Your task to perform on an android device: What is the recent news? Image 0: 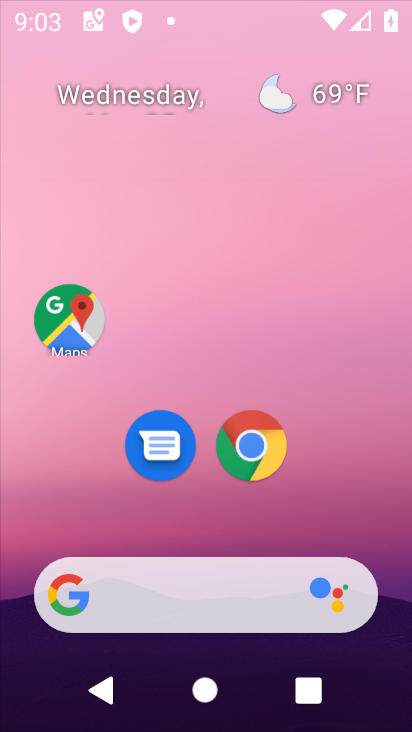
Step 0: click (346, 85)
Your task to perform on an android device: What is the recent news? Image 1: 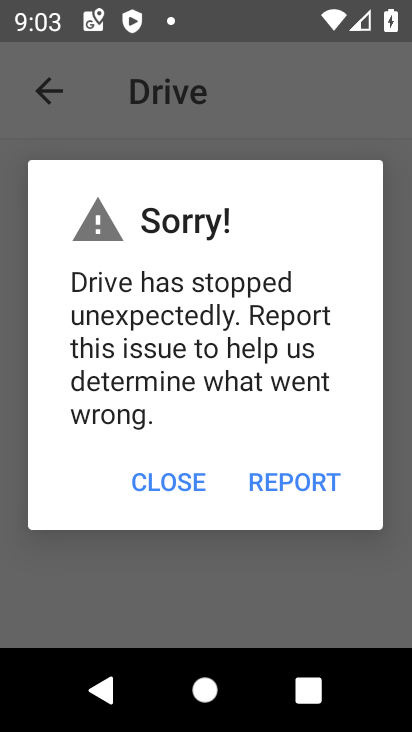
Step 1: press home button
Your task to perform on an android device: What is the recent news? Image 2: 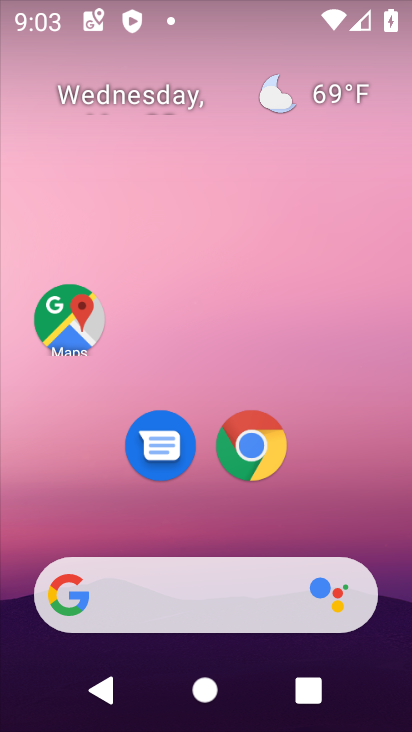
Step 2: click (261, 443)
Your task to perform on an android device: What is the recent news? Image 3: 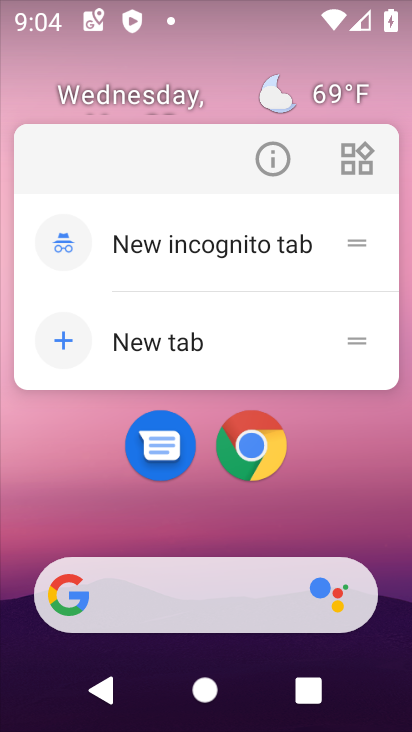
Step 3: click (296, 495)
Your task to perform on an android device: What is the recent news? Image 4: 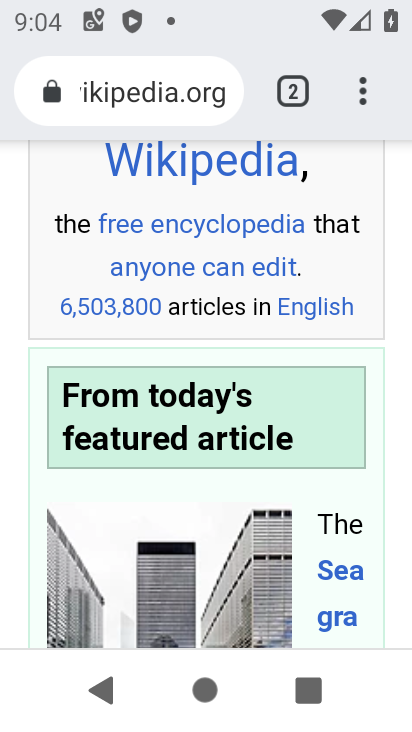
Step 4: drag from (362, 93) to (97, 168)
Your task to perform on an android device: What is the recent news? Image 5: 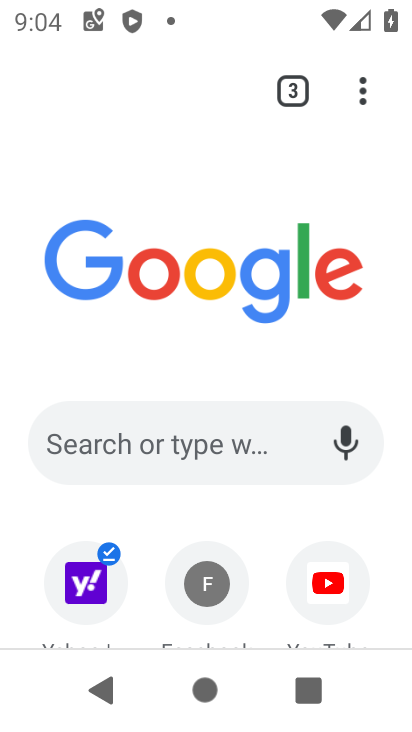
Step 5: click (187, 439)
Your task to perform on an android device: What is the recent news? Image 6: 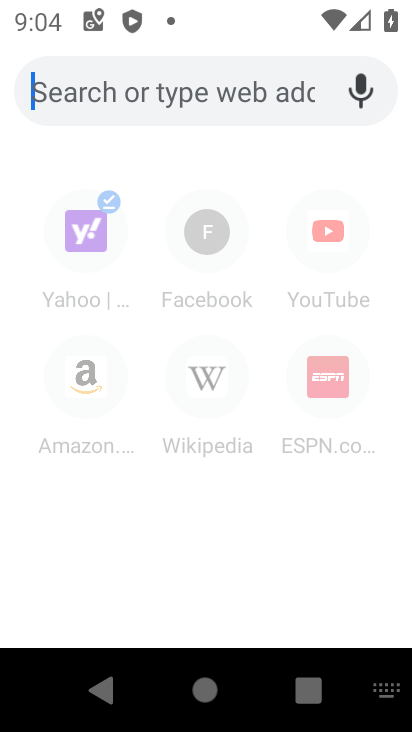
Step 6: type "What is the recent news?"
Your task to perform on an android device: What is the recent news? Image 7: 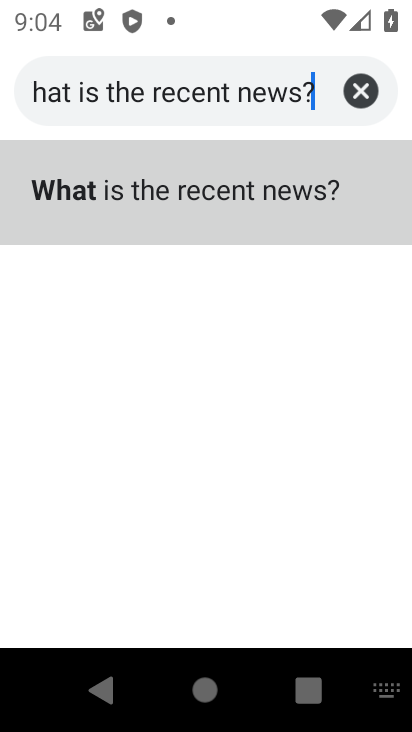
Step 7: click (271, 198)
Your task to perform on an android device: What is the recent news? Image 8: 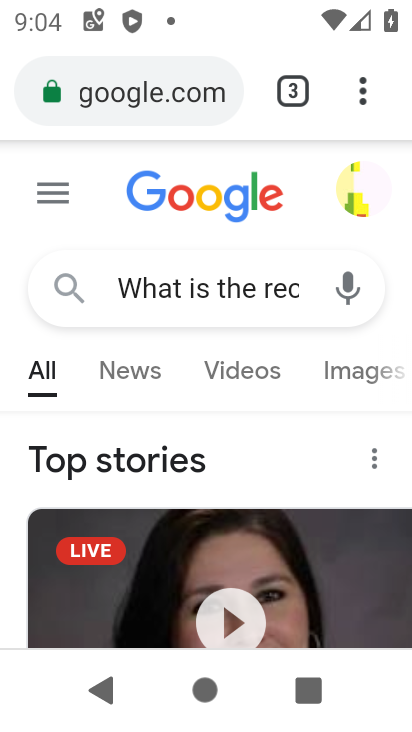
Step 8: drag from (179, 483) to (222, 119)
Your task to perform on an android device: What is the recent news? Image 9: 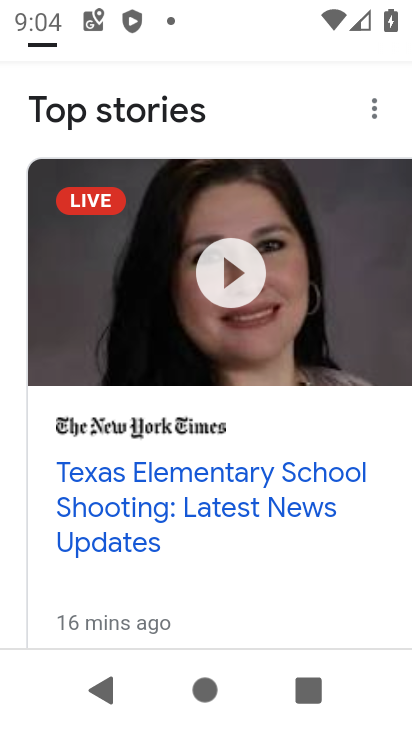
Step 9: drag from (222, 119) to (188, 556)
Your task to perform on an android device: What is the recent news? Image 10: 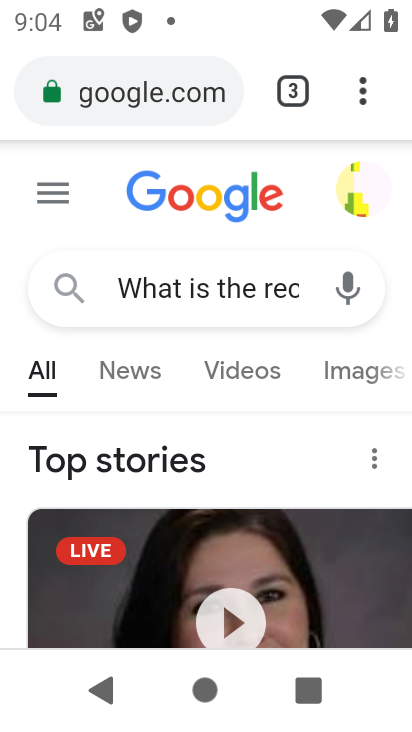
Step 10: click (112, 383)
Your task to perform on an android device: What is the recent news? Image 11: 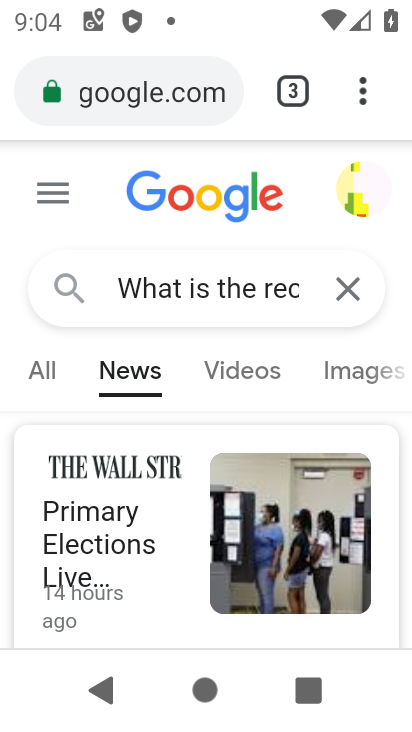
Step 11: task complete